Your task to perform on an android device: change the clock display to show seconds Image 0: 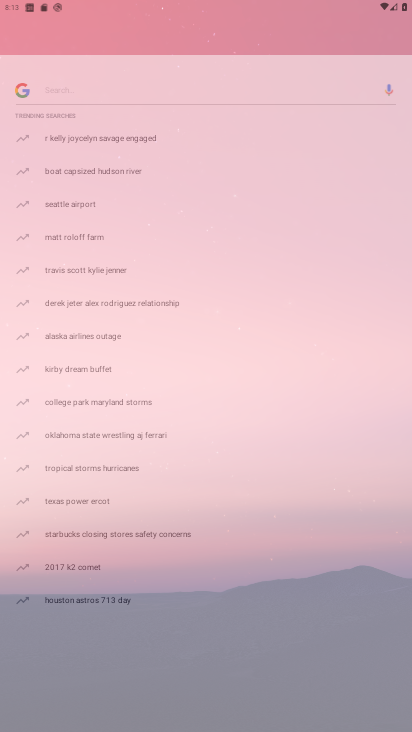
Step 0: drag from (254, 597) to (238, 49)
Your task to perform on an android device: change the clock display to show seconds Image 1: 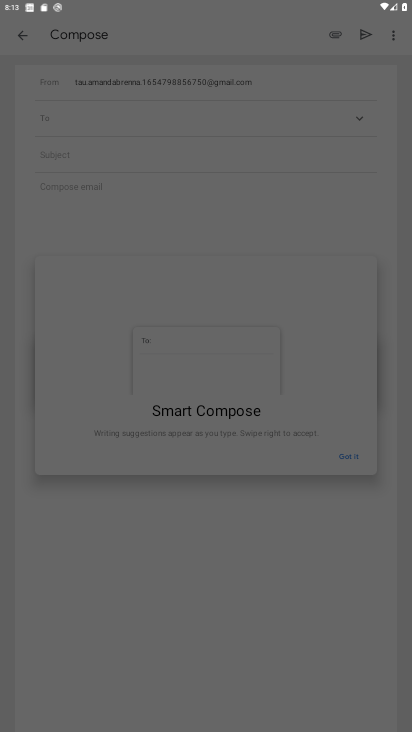
Step 1: click (356, 452)
Your task to perform on an android device: change the clock display to show seconds Image 2: 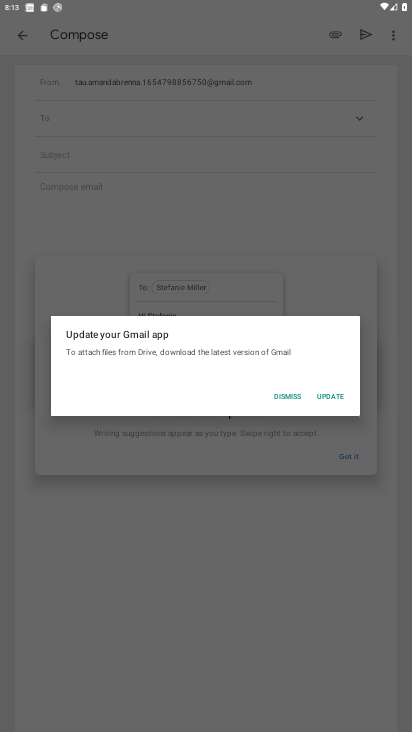
Step 2: press home button
Your task to perform on an android device: change the clock display to show seconds Image 3: 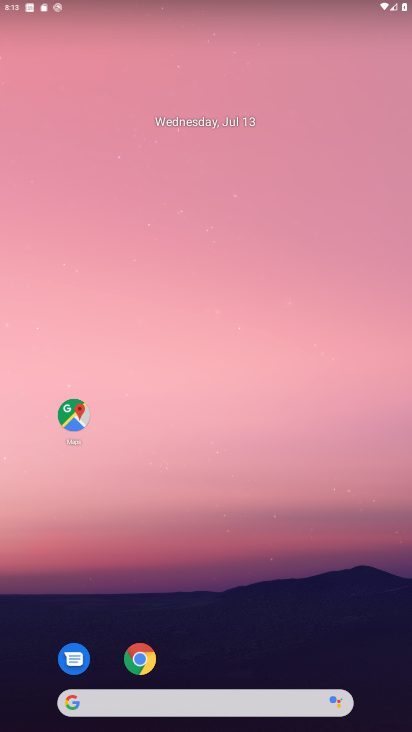
Step 3: drag from (202, 536) to (114, 32)
Your task to perform on an android device: change the clock display to show seconds Image 4: 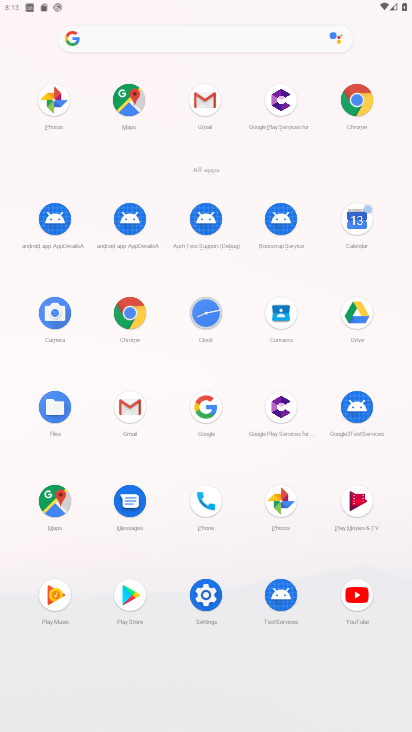
Step 4: click (204, 309)
Your task to perform on an android device: change the clock display to show seconds Image 5: 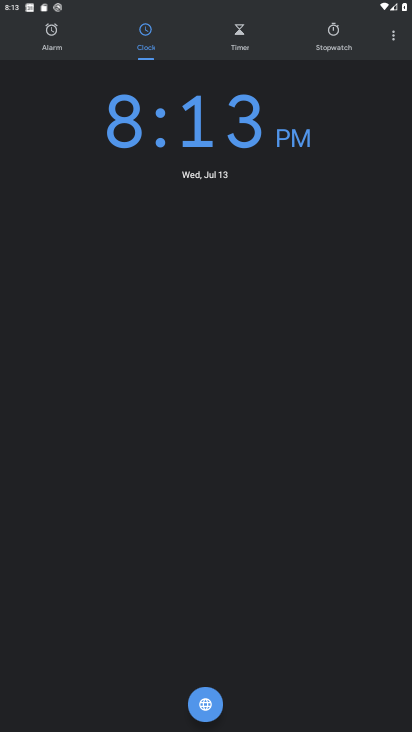
Step 5: click (399, 36)
Your task to perform on an android device: change the clock display to show seconds Image 6: 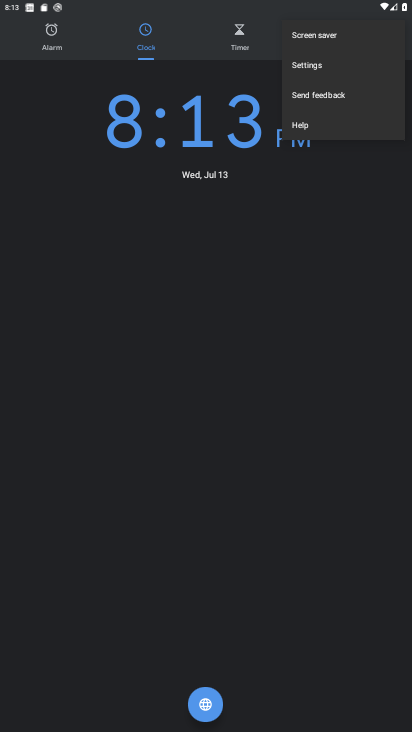
Step 6: click (313, 61)
Your task to perform on an android device: change the clock display to show seconds Image 7: 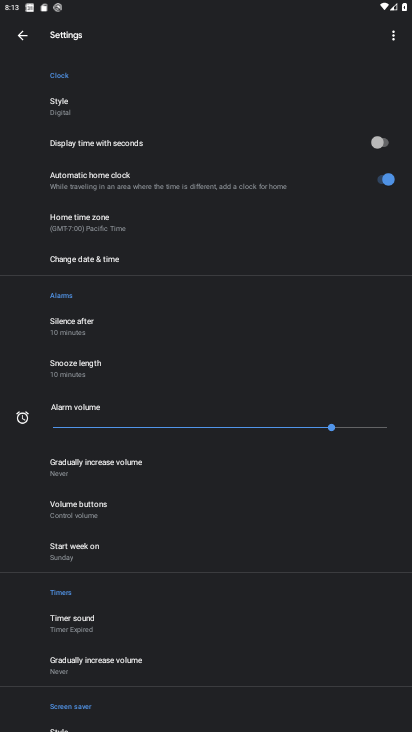
Step 7: click (372, 138)
Your task to perform on an android device: change the clock display to show seconds Image 8: 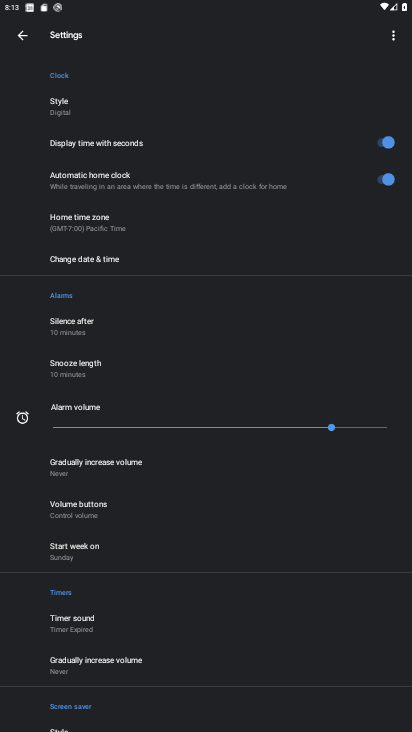
Step 8: task complete